Your task to perform on an android device: What is the recent news? Image 0: 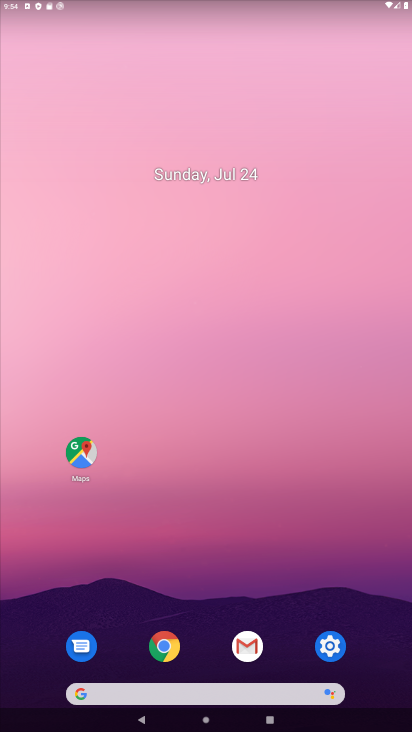
Step 0: click (182, 690)
Your task to perform on an android device: What is the recent news? Image 1: 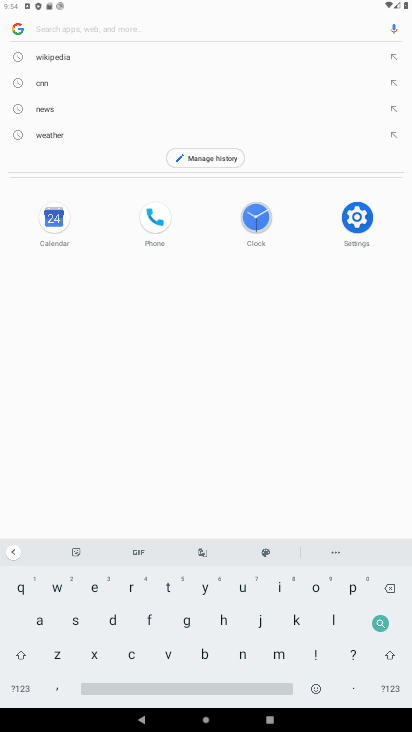
Step 1: click (127, 580)
Your task to perform on an android device: What is the recent news? Image 2: 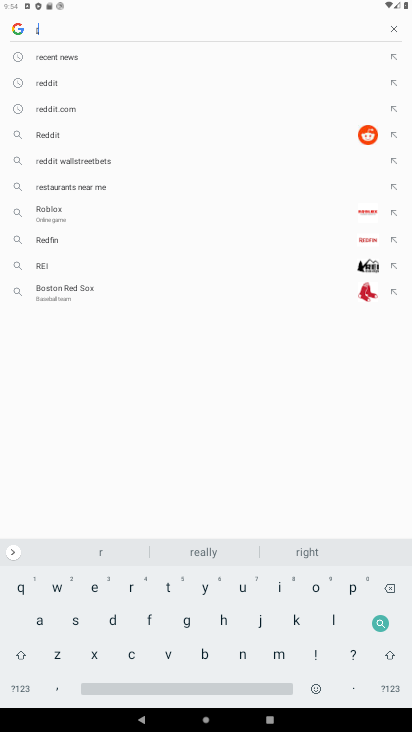
Step 2: click (88, 585)
Your task to perform on an android device: What is the recent news? Image 3: 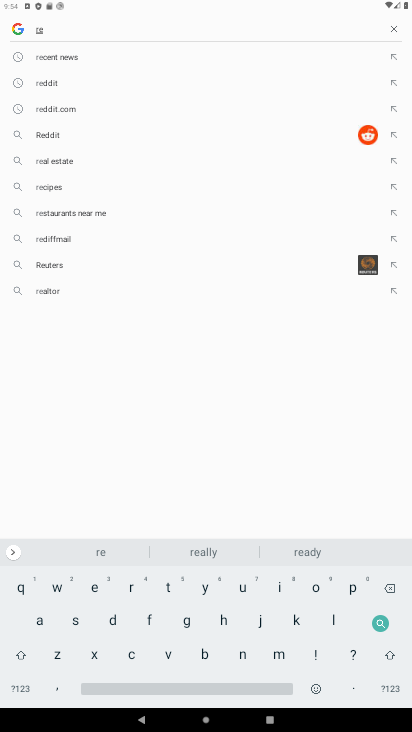
Step 3: click (54, 57)
Your task to perform on an android device: What is the recent news? Image 4: 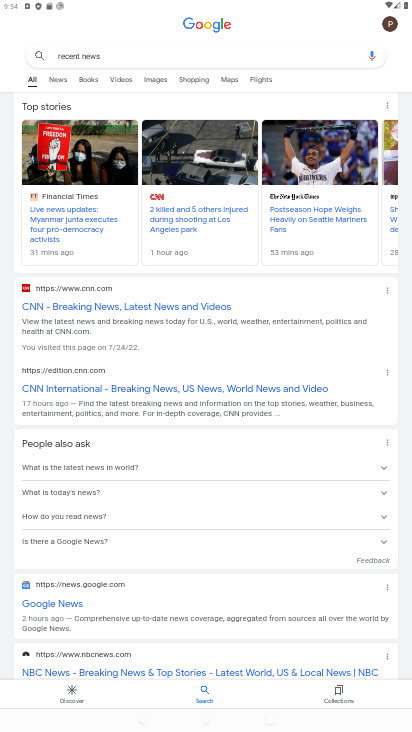
Step 4: task complete